Your task to perform on an android device: Check the weather Image 0: 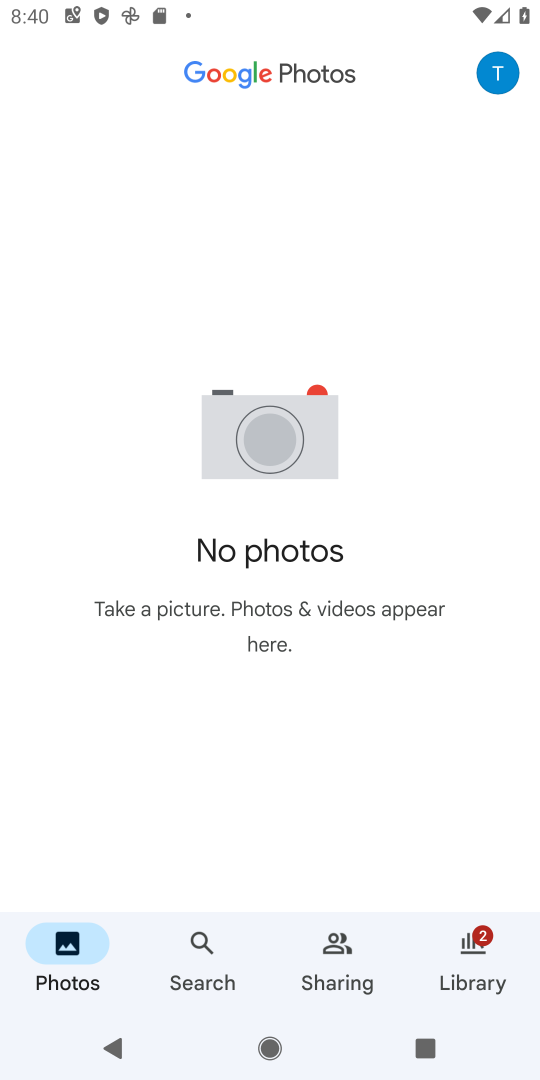
Step 0: press home button
Your task to perform on an android device: Check the weather Image 1: 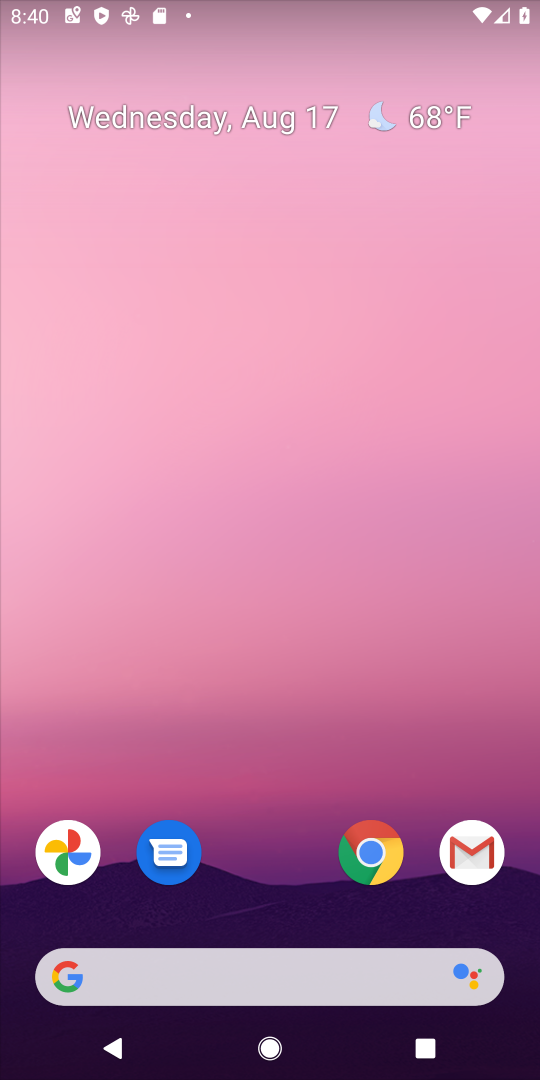
Step 1: click (122, 961)
Your task to perform on an android device: Check the weather Image 2: 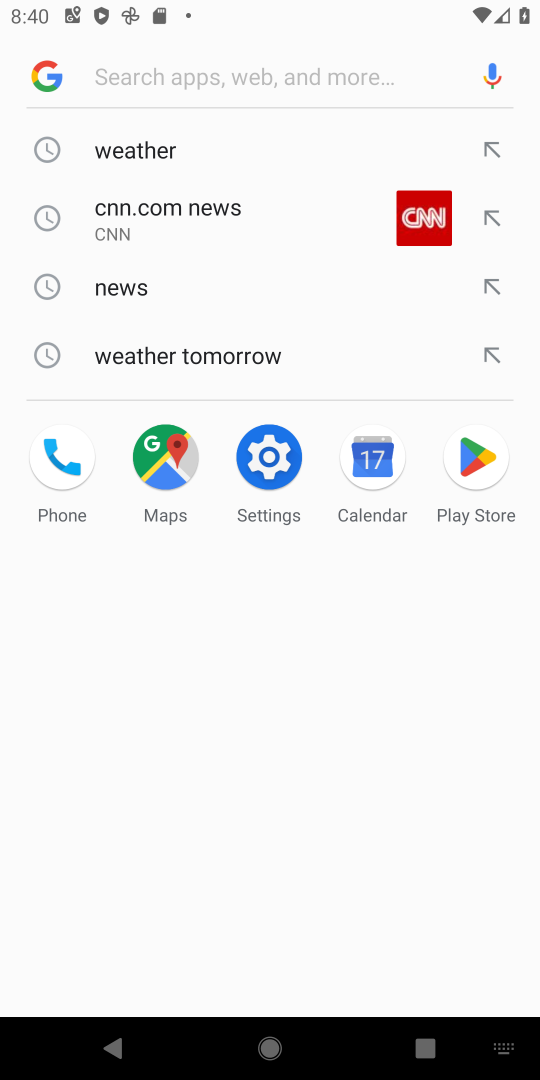
Step 2: click (129, 145)
Your task to perform on an android device: Check the weather Image 3: 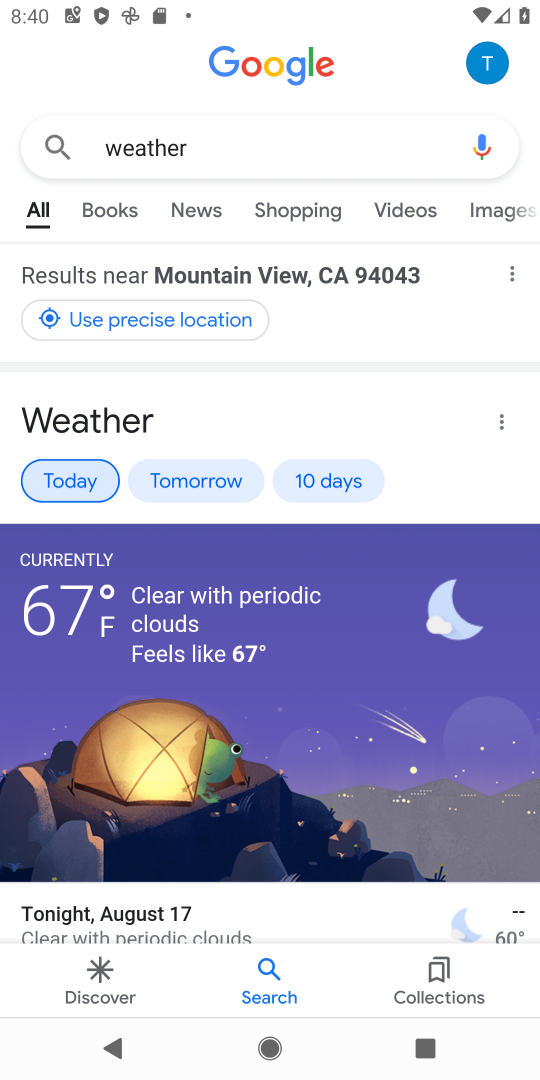
Step 3: task complete